Your task to perform on an android device: turn vacation reply on in the gmail app Image 0: 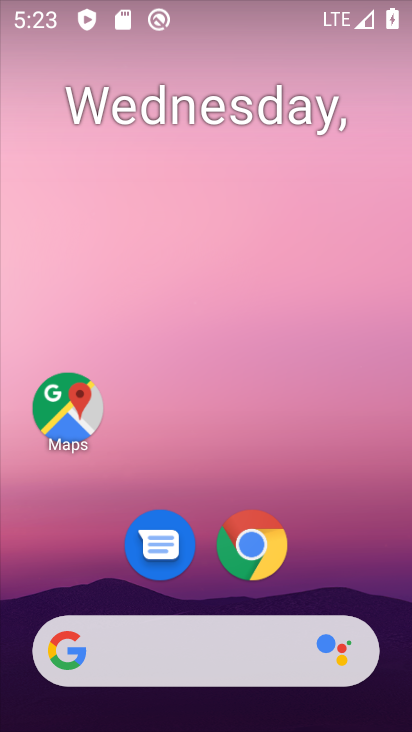
Step 0: drag from (166, 564) to (249, 26)
Your task to perform on an android device: turn vacation reply on in the gmail app Image 1: 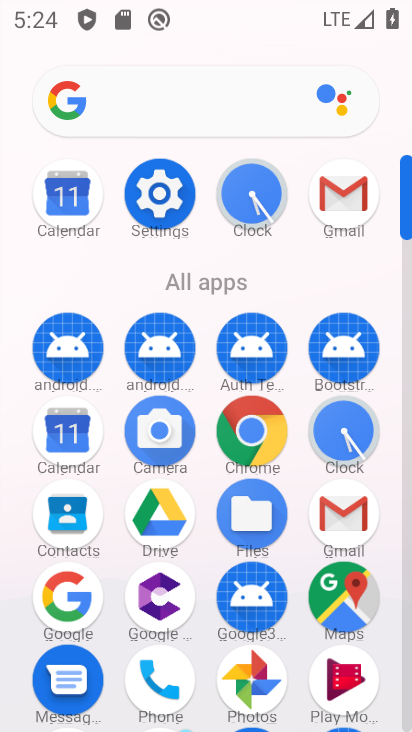
Step 1: click (351, 193)
Your task to perform on an android device: turn vacation reply on in the gmail app Image 2: 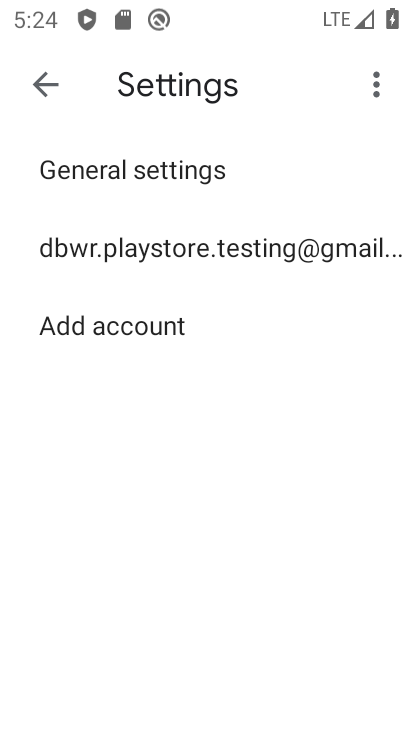
Step 2: click (214, 254)
Your task to perform on an android device: turn vacation reply on in the gmail app Image 3: 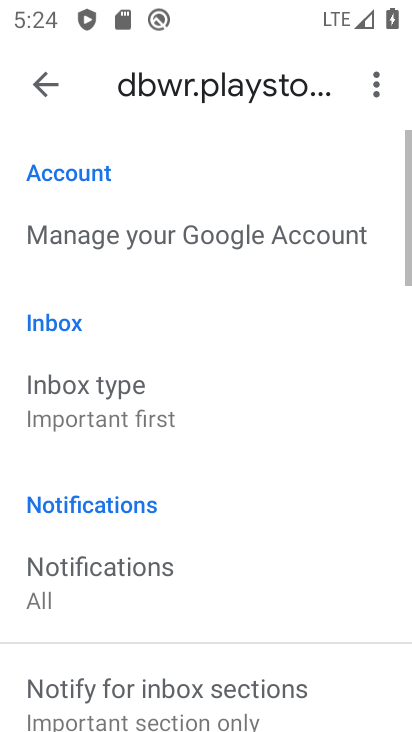
Step 3: drag from (208, 635) to (265, 107)
Your task to perform on an android device: turn vacation reply on in the gmail app Image 4: 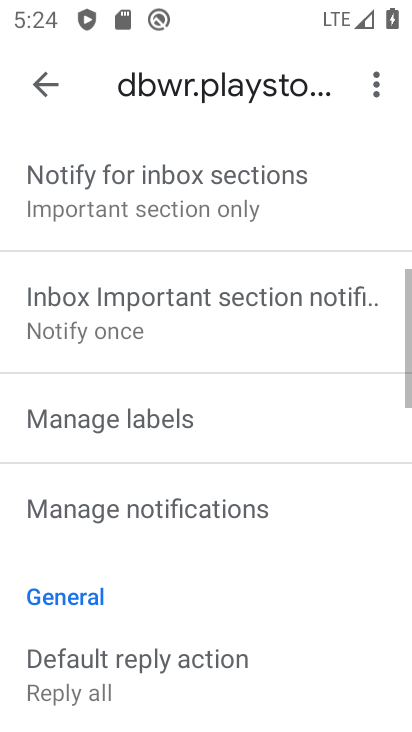
Step 4: drag from (181, 549) to (260, 18)
Your task to perform on an android device: turn vacation reply on in the gmail app Image 5: 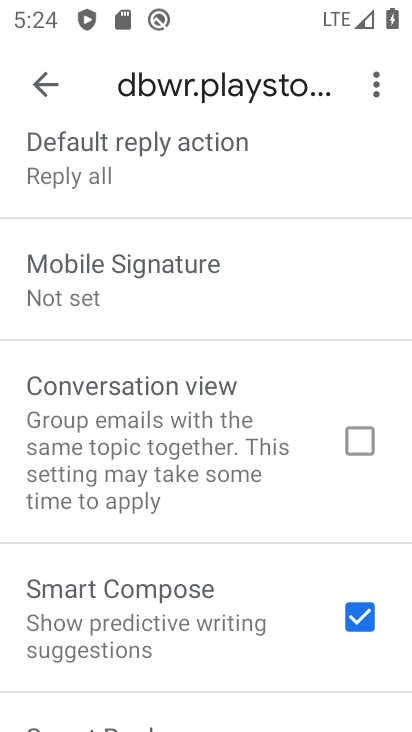
Step 5: drag from (174, 649) to (235, 192)
Your task to perform on an android device: turn vacation reply on in the gmail app Image 6: 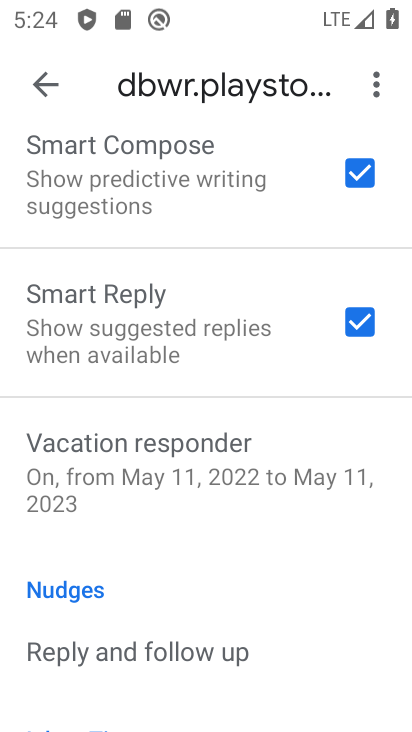
Step 6: click (230, 487)
Your task to perform on an android device: turn vacation reply on in the gmail app Image 7: 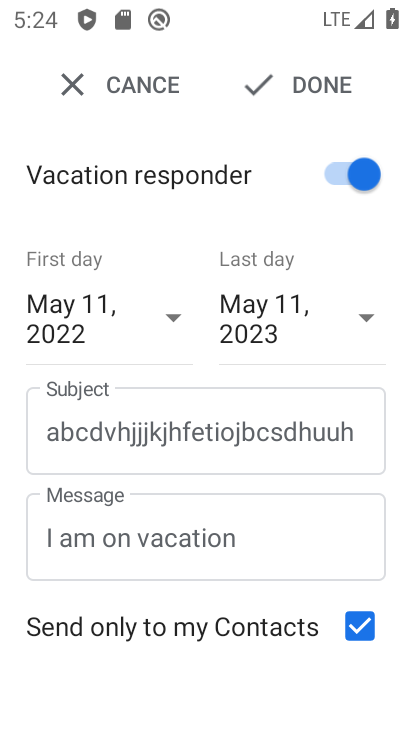
Step 7: task complete